Your task to perform on an android device: What's on my calendar today? Image 0: 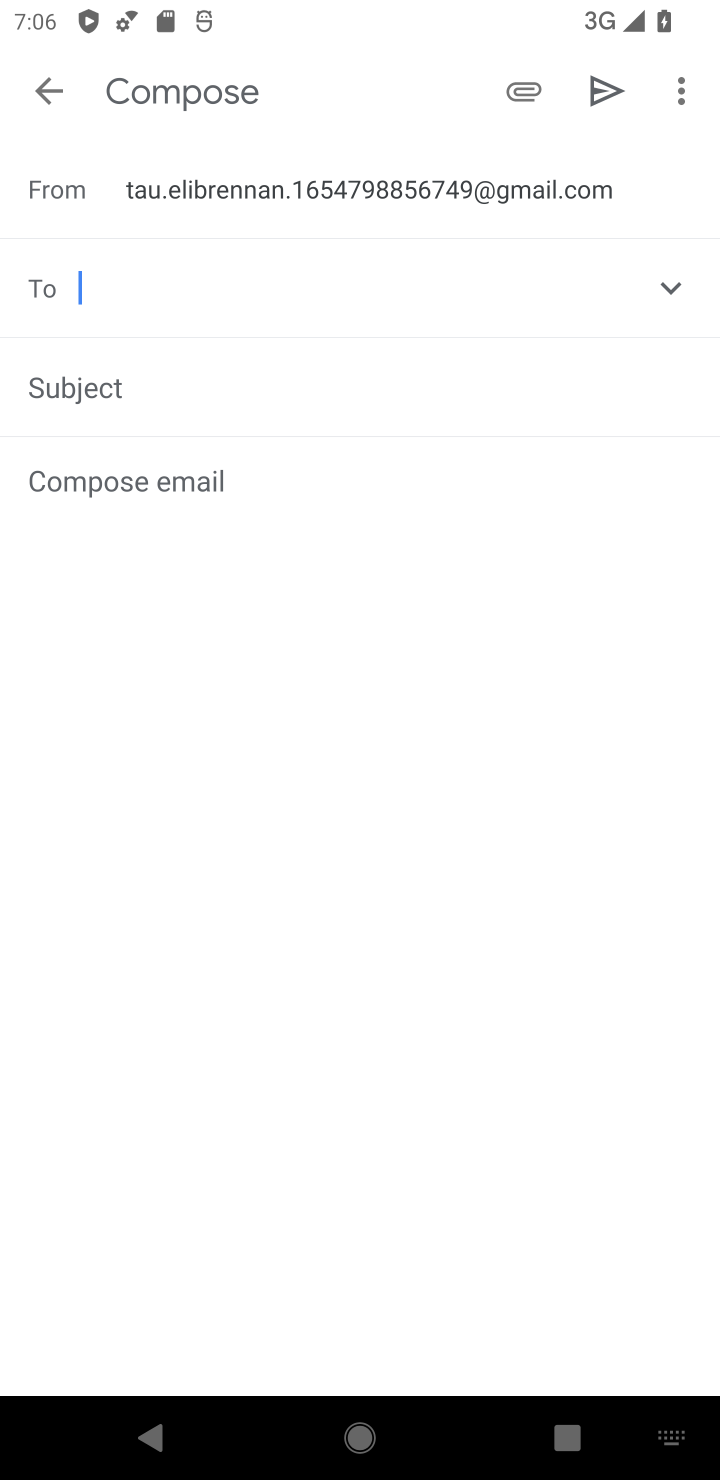
Step 0: press home button
Your task to perform on an android device: What's on my calendar today? Image 1: 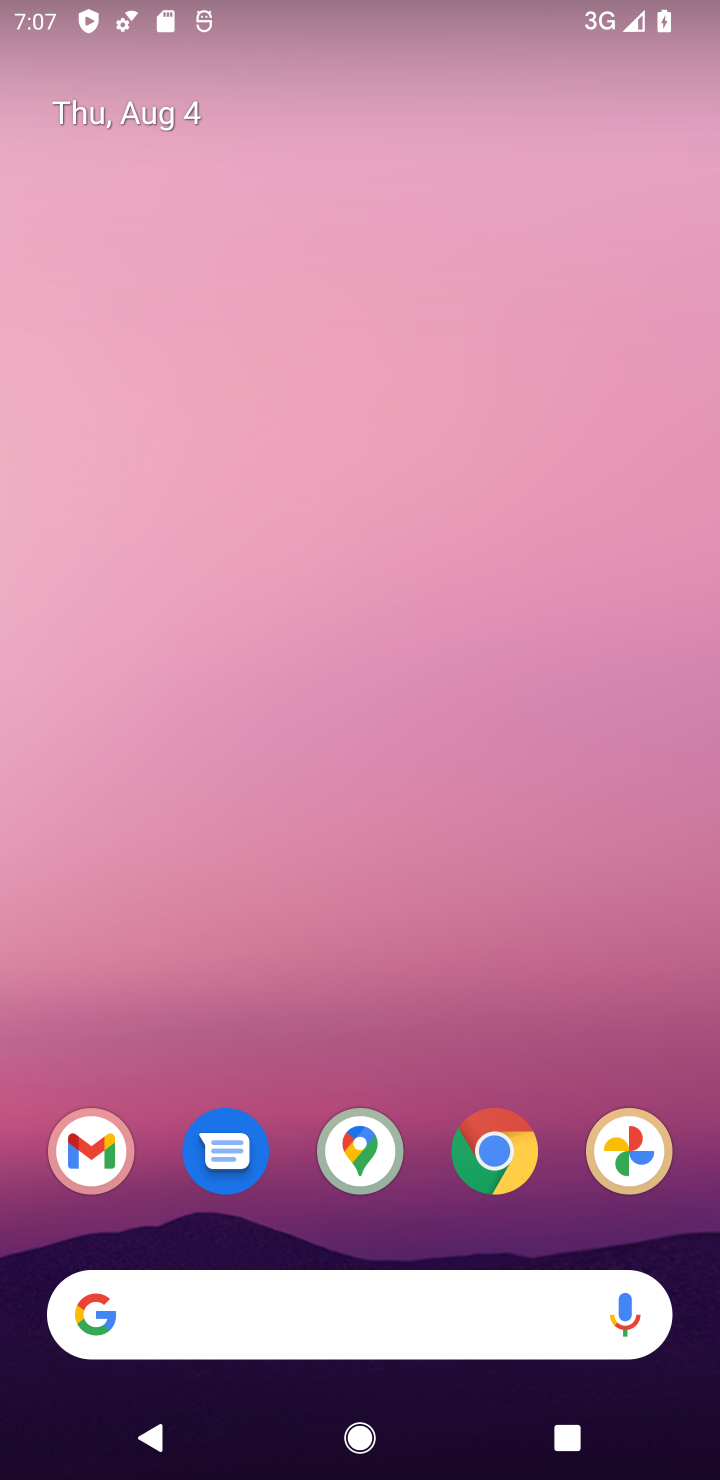
Step 1: drag from (512, 1014) to (392, 359)
Your task to perform on an android device: What's on my calendar today? Image 2: 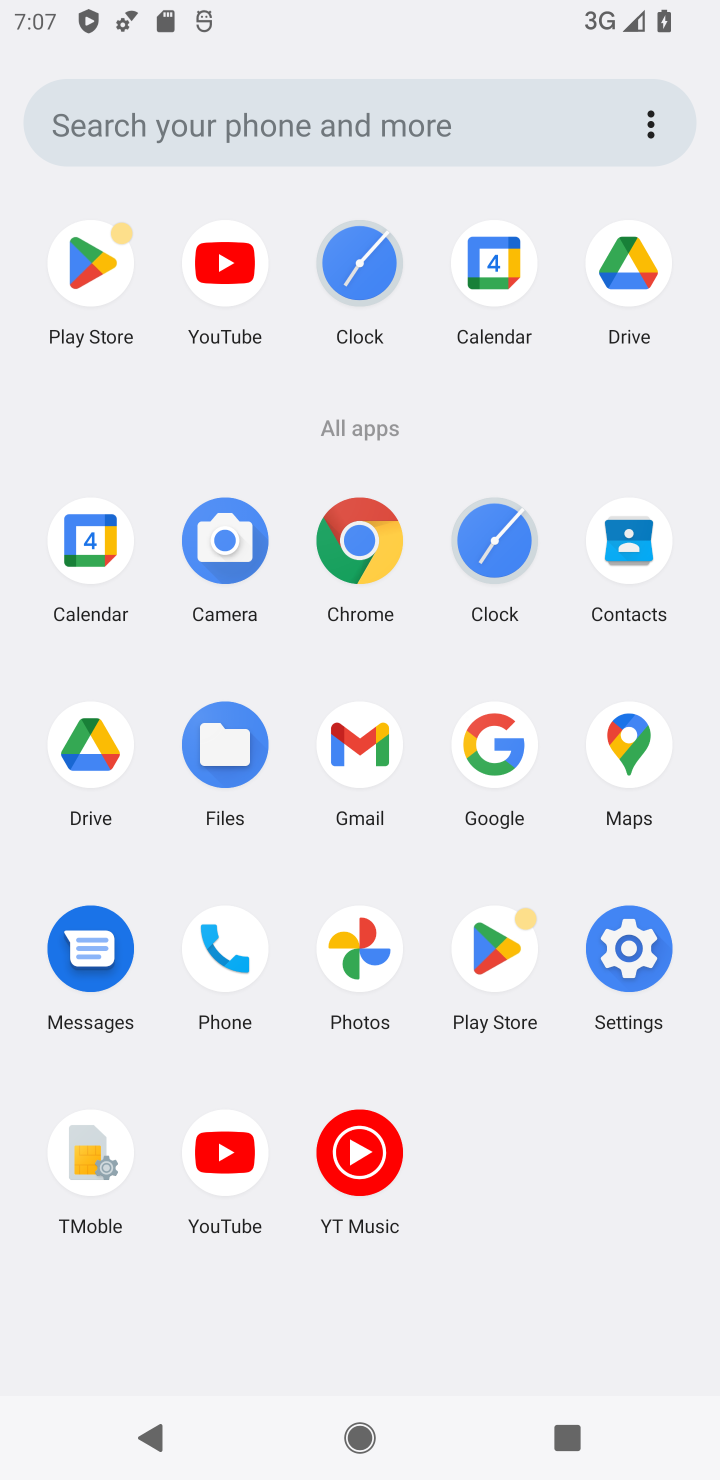
Step 2: click (513, 279)
Your task to perform on an android device: What's on my calendar today? Image 3: 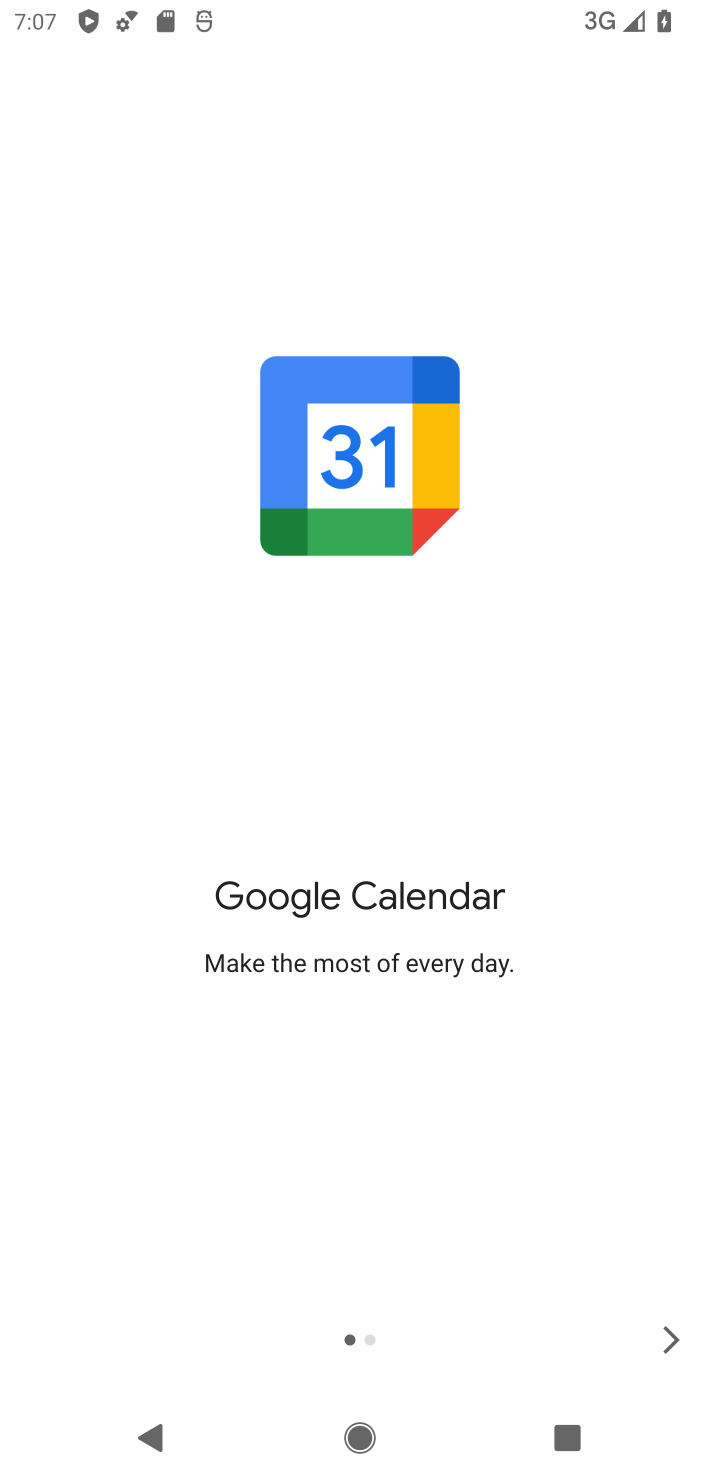
Step 3: click (665, 1347)
Your task to perform on an android device: What's on my calendar today? Image 4: 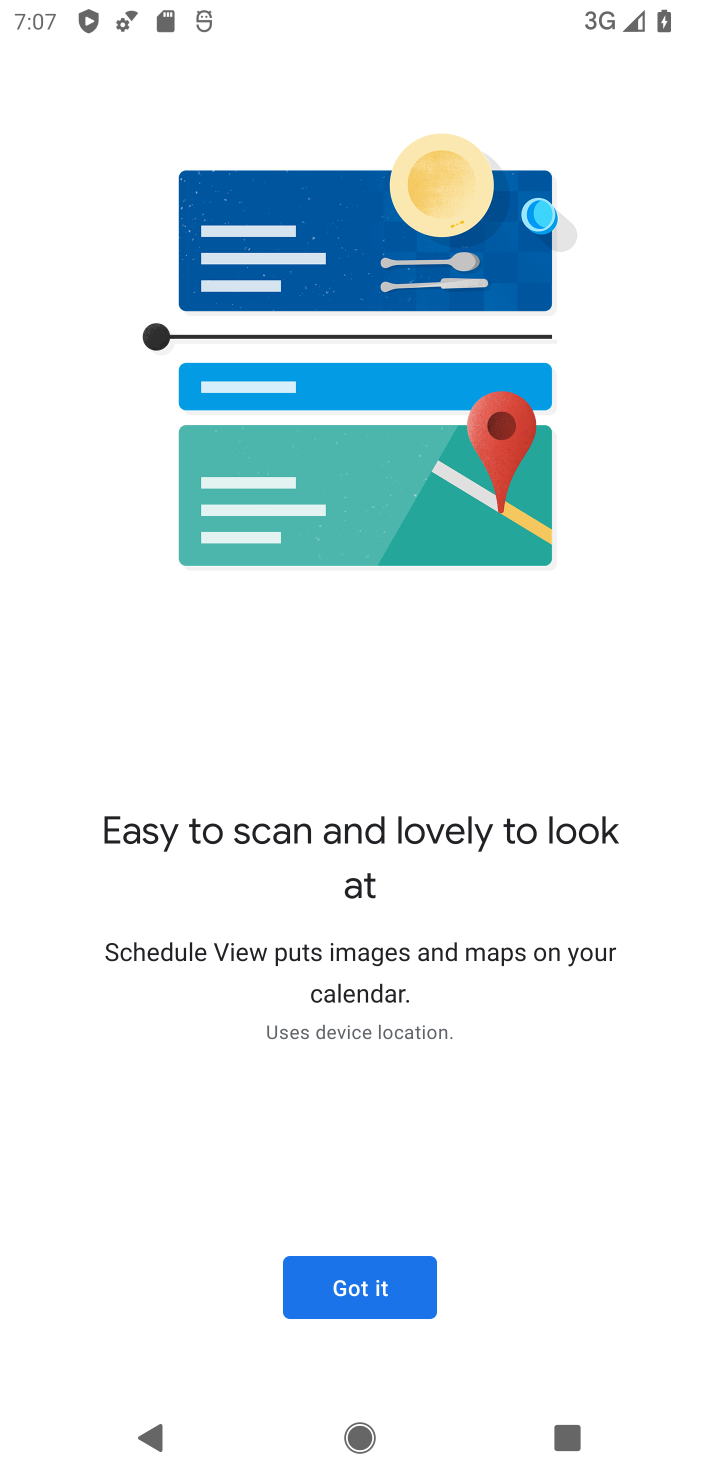
Step 4: click (402, 1276)
Your task to perform on an android device: What's on my calendar today? Image 5: 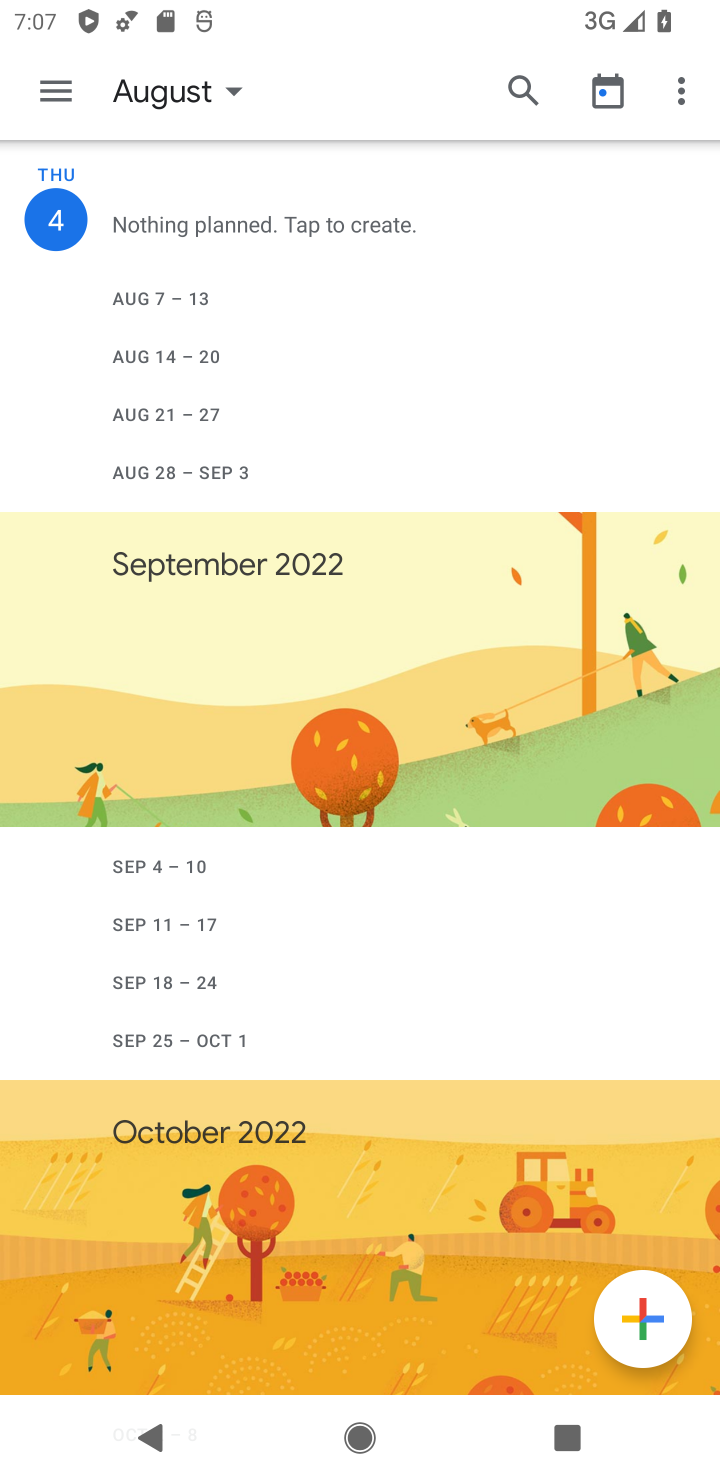
Step 5: click (53, 91)
Your task to perform on an android device: What's on my calendar today? Image 6: 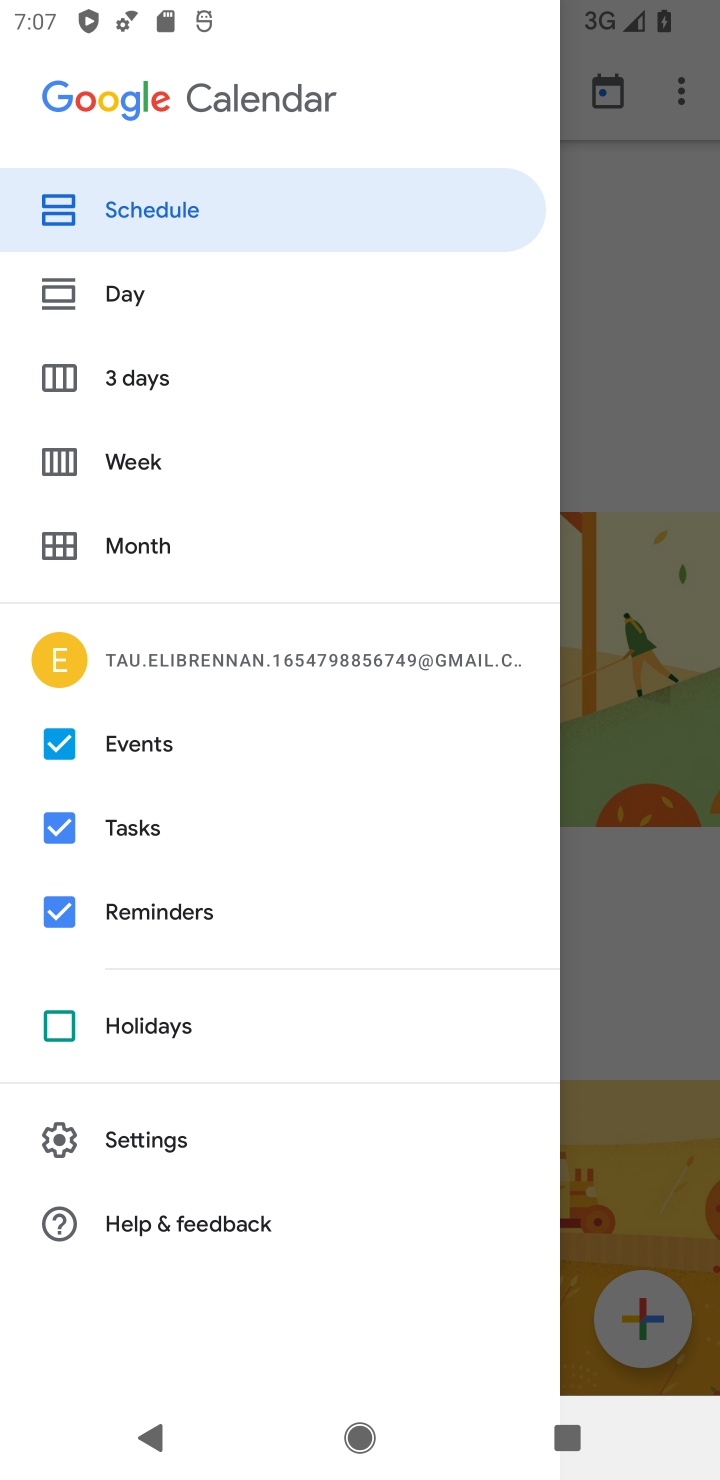
Step 6: click (120, 301)
Your task to perform on an android device: What's on my calendar today? Image 7: 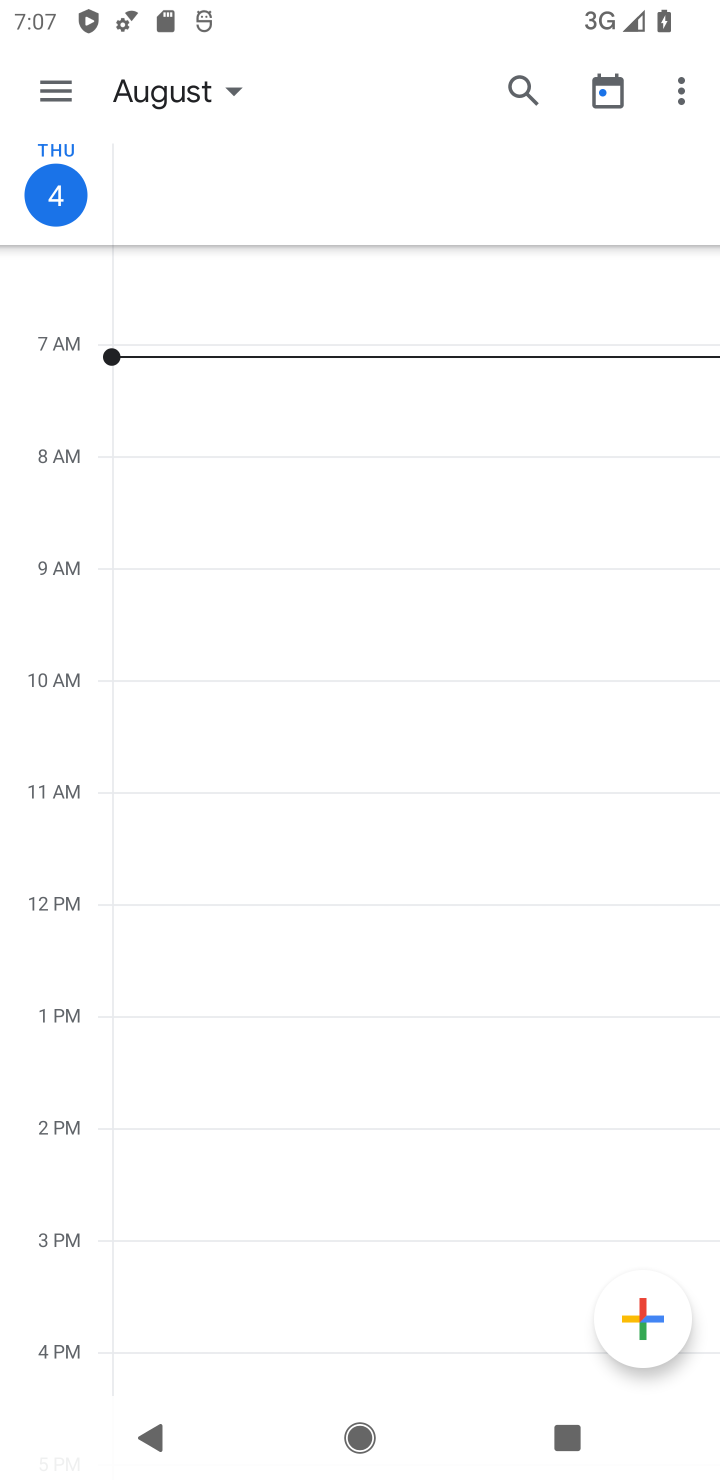
Step 7: task complete